Your task to perform on an android device: open app "LinkedIn" Image 0: 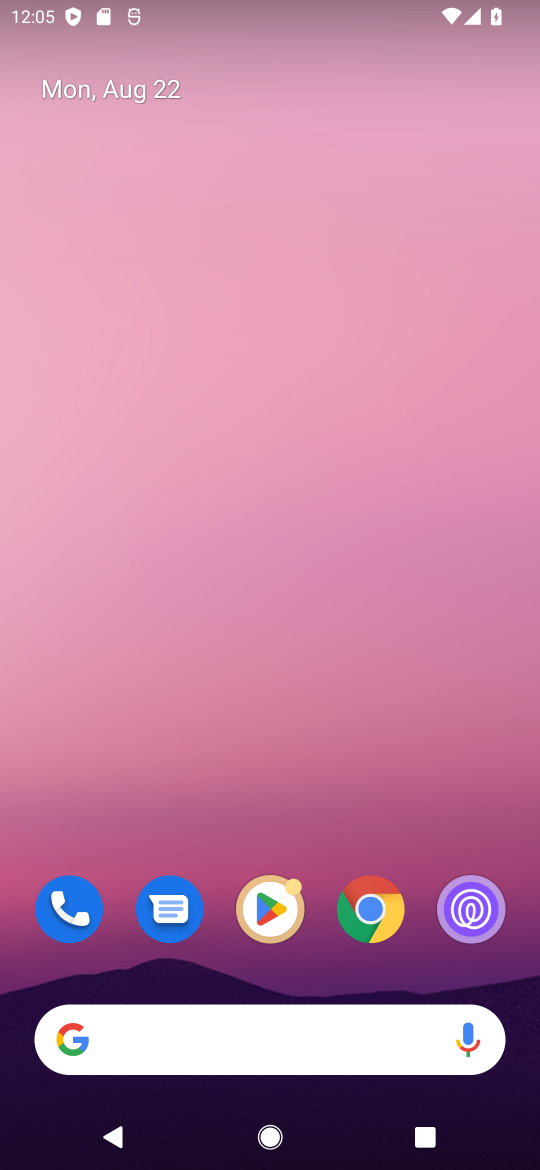
Step 0: click (284, 894)
Your task to perform on an android device: open app "LinkedIn" Image 1: 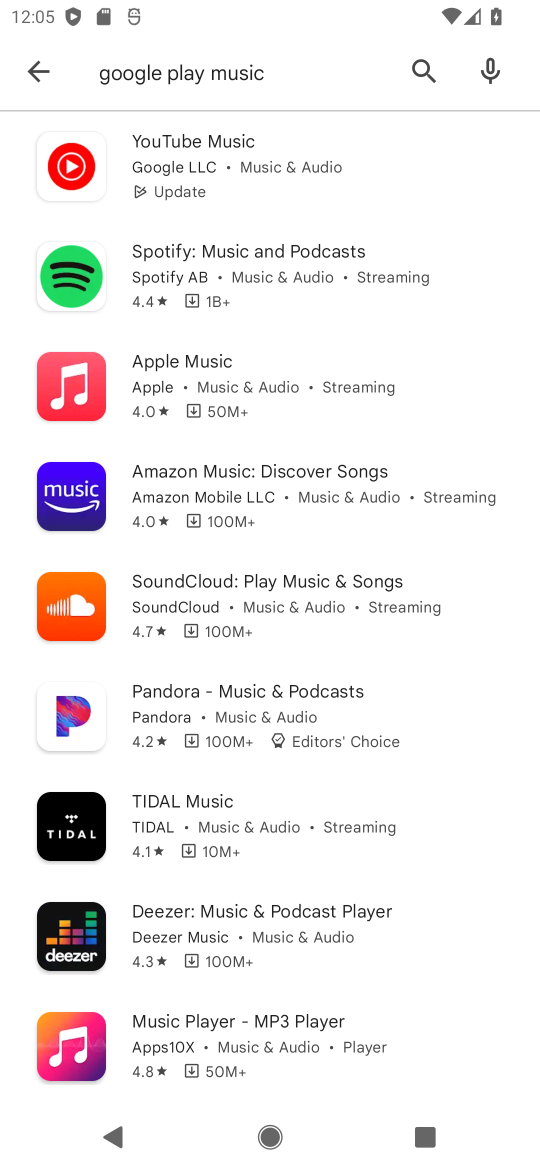
Step 1: click (414, 87)
Your task to perform on an android device: open app "LinkedIn" Image 2: 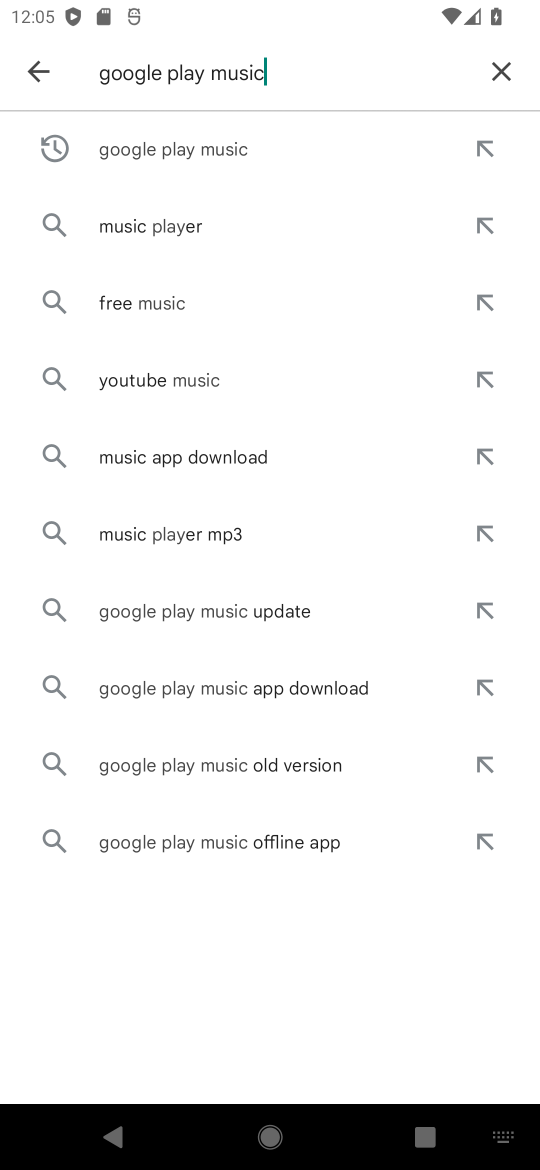
Step 2: click (506, 68)
Your task to perform on an android device: open app "LinkedIn" Image 3: 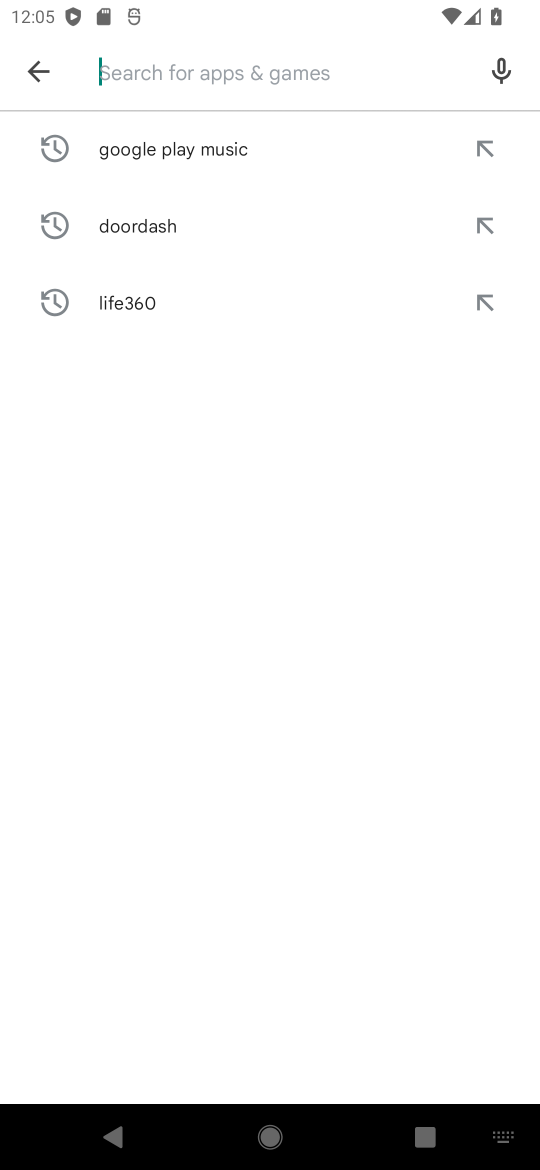
Step 3: click (211, 73)
Your task to perform on an android device: open app "LinkedIn" Image 4: 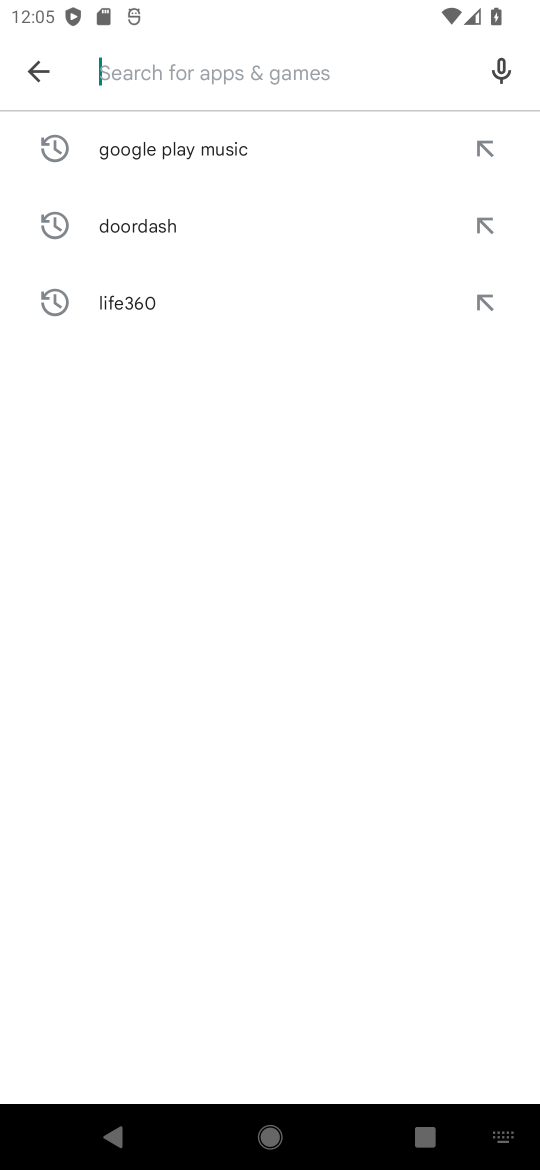
Step 4: type "LinkedIn"
Your task to perform on an android device: open app "LinkedIn" Image 5: 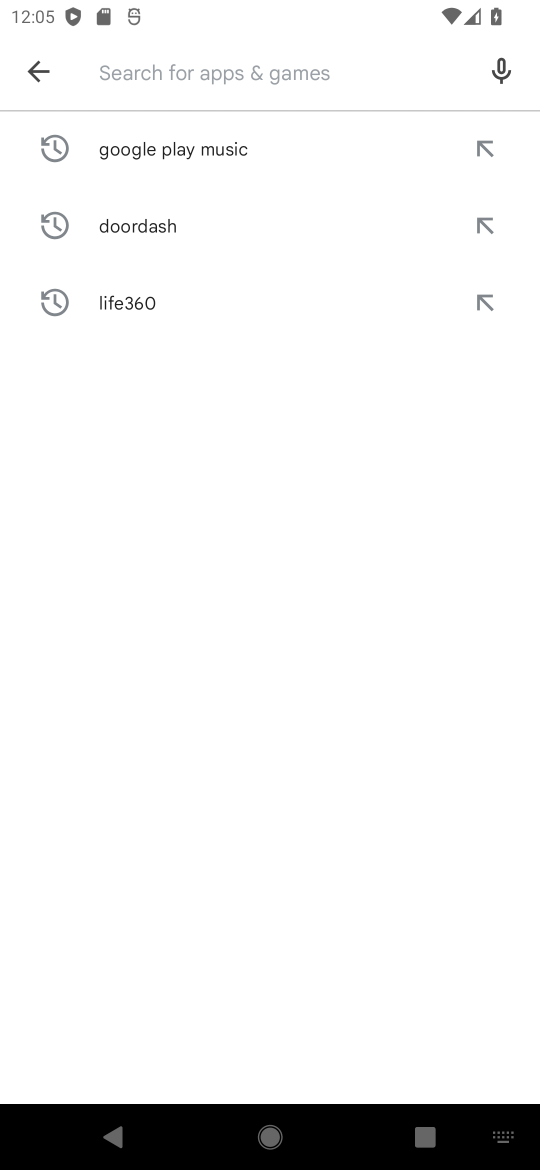
Step 5: click (32, 734)
Your task to perform on an android device: open app "LinkedIn" Image 6: 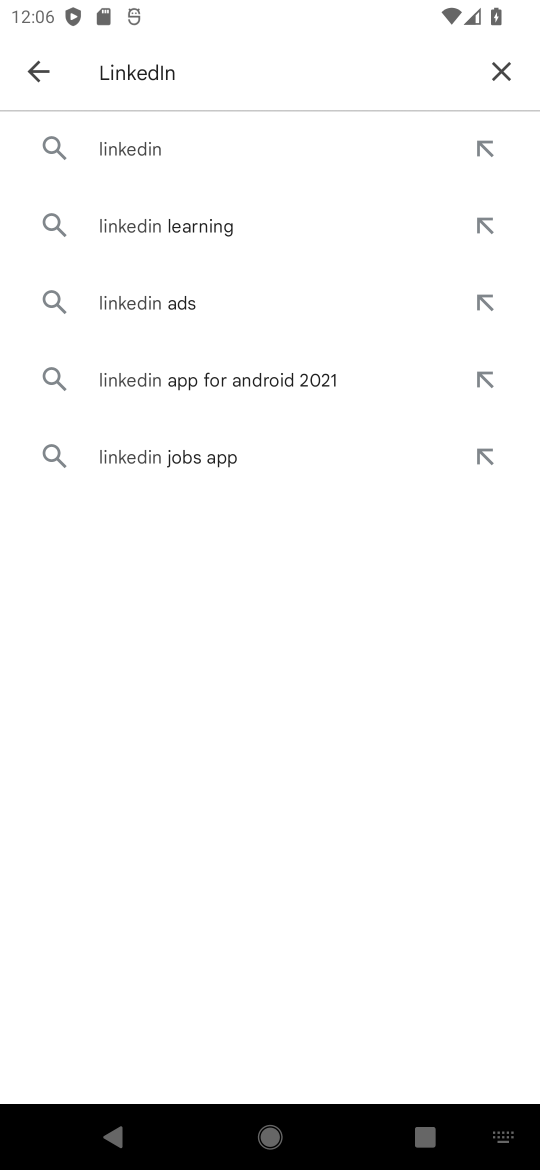
Step 6: click (159, 137)
Your task to perform on an android device: open app "LinkedIn" Image 7: 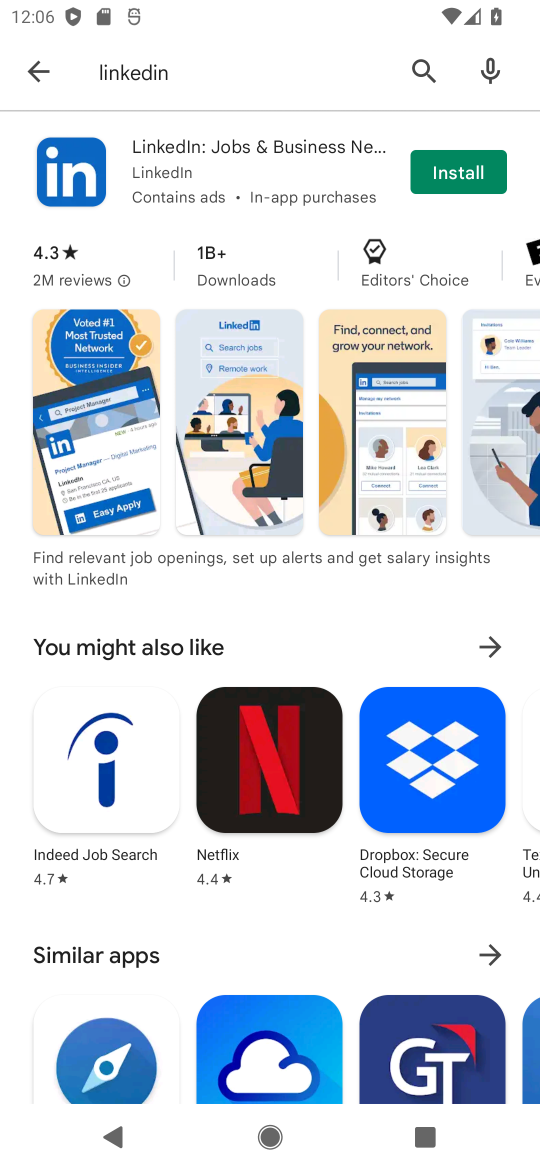
Step 7: task complete